Your task to perform on an android device: add a contact in the contacts app Image 0: 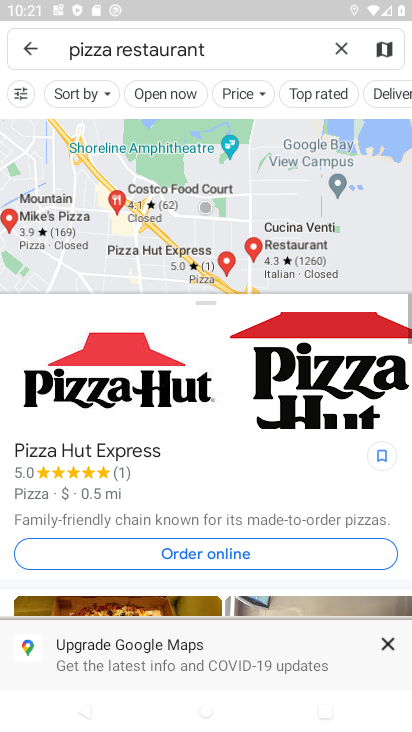
Step 0: drag from (211, 617) to (390, 367)
Your task to perform on an android device: add a contact in the contacts app Image 1: 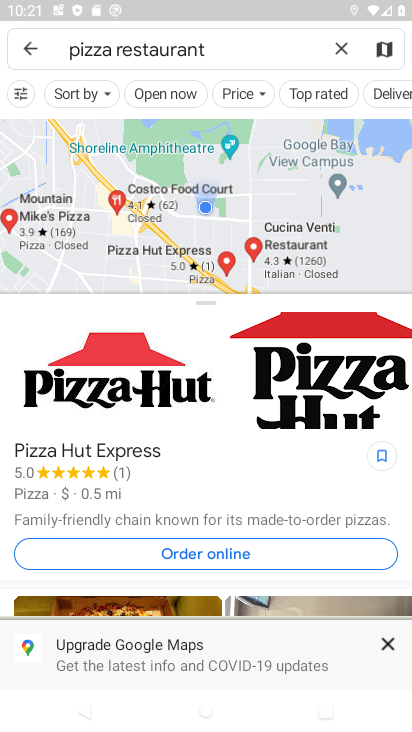
Step 1: press home button
Your task to perform on an android device: add a contact in the contacts app Image 2: 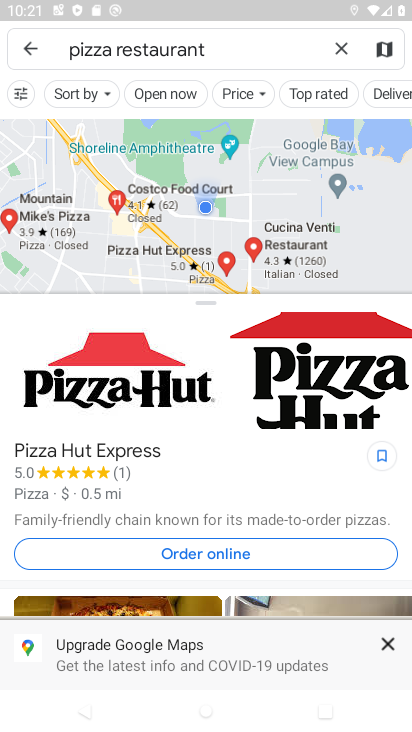
Step 2: click (401, 450)
Your task to perform on an android device: add a contact in the contacts app Image 3: 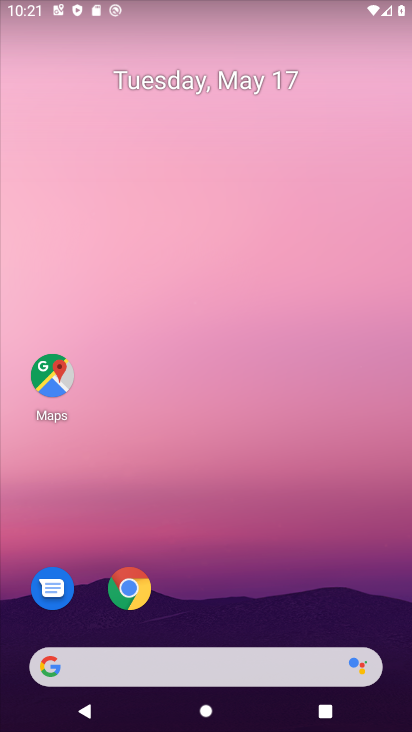
Step 3: drag from (197, 493) to (257, 63)
Your task to perform on an android device: add a contact in the contacts app Image 4: 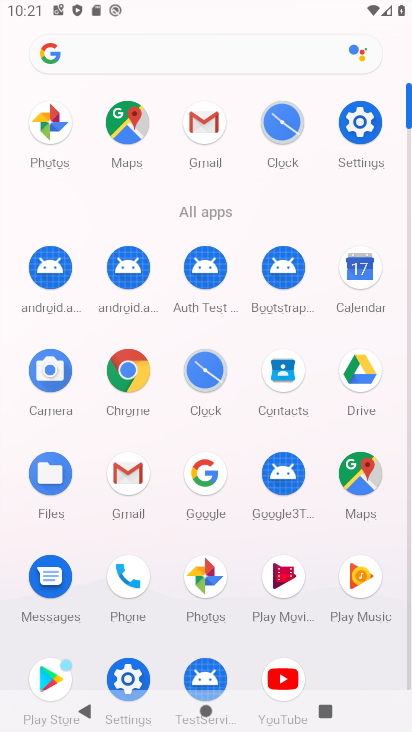
Step 4: click (282, 387)
Your task to perform on an android device: add a contact in the contacts app Image 5: 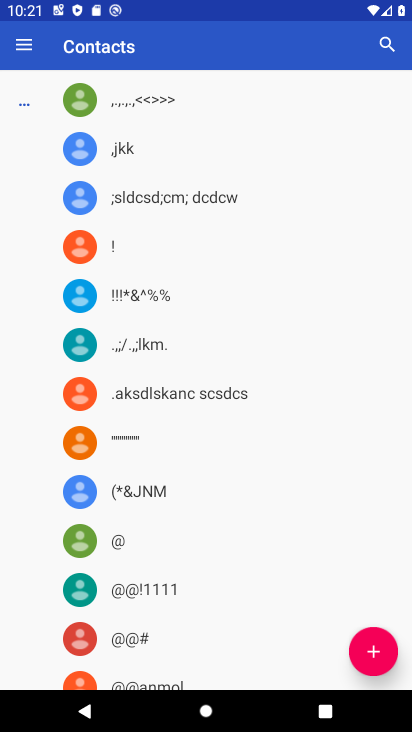
Step 5: click (363, 665)
Your task to perform on an android device: add a contact in the contacts app Image 6: 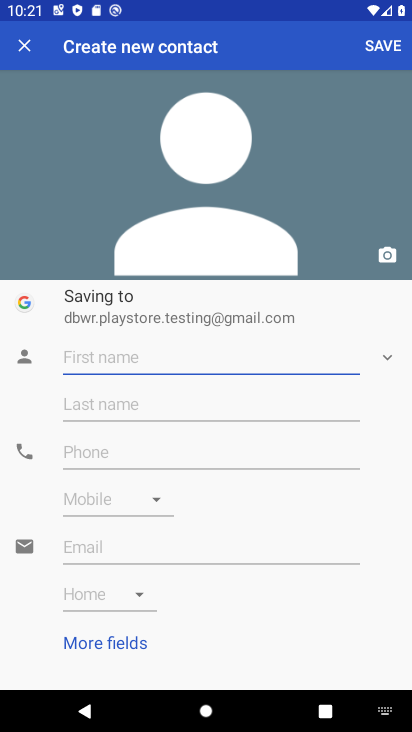
Step 6: type "vggyuu"
Your task to perform on an android device: add a contact in the contacts app Image 7: 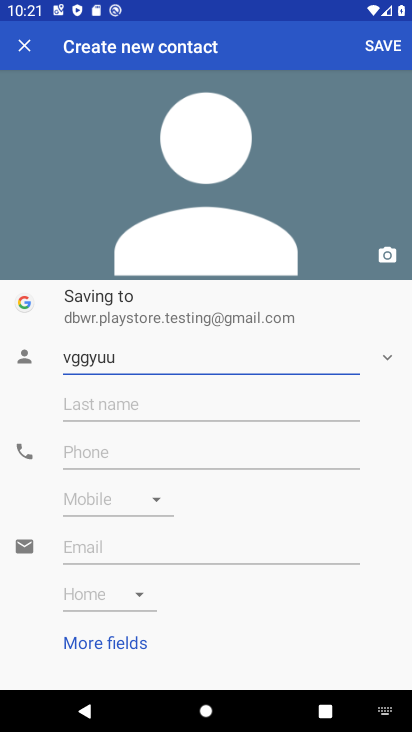
Step 7: click (92, 450)
Your task to perform on an android device: add a contact in the contacts app Image 8: 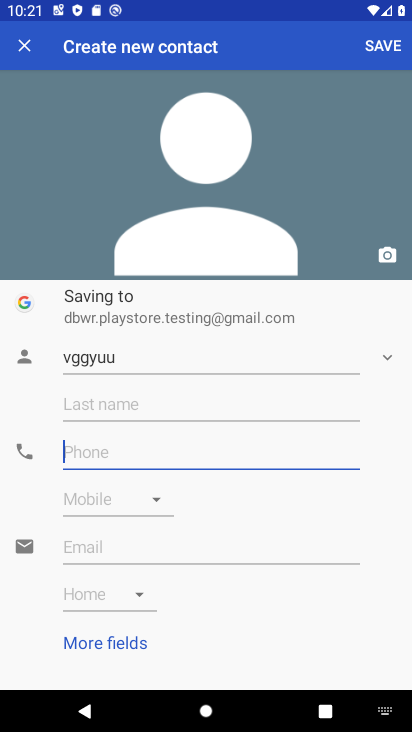
Step 8: type "9876"
Your task to perform on an android device: add a contact in the contacts app Image 9: 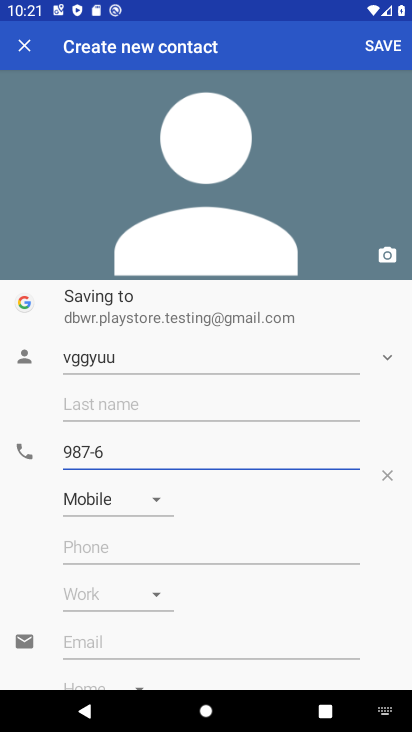
Step 9: click (381, 37)
Your task to perform on an android device: add a contact in the contacts app Image 10: 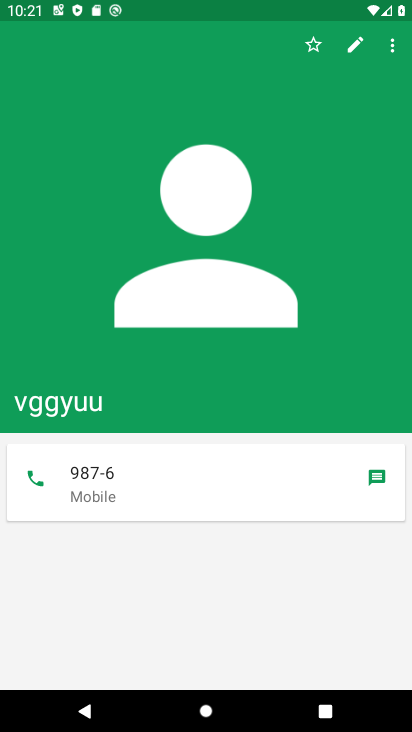
Step 10: task complete